Your task to perform on an android device: set the timer Image 0: 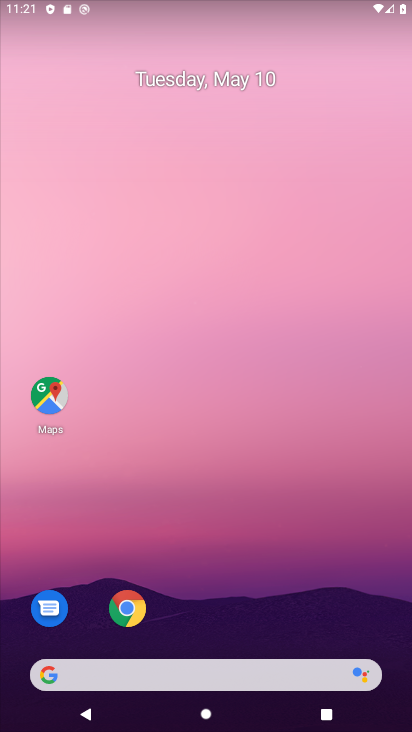
Step 0: drag from (238, 538) to (243, 266)
Your task to perform on an android device: set the timer Image 1: 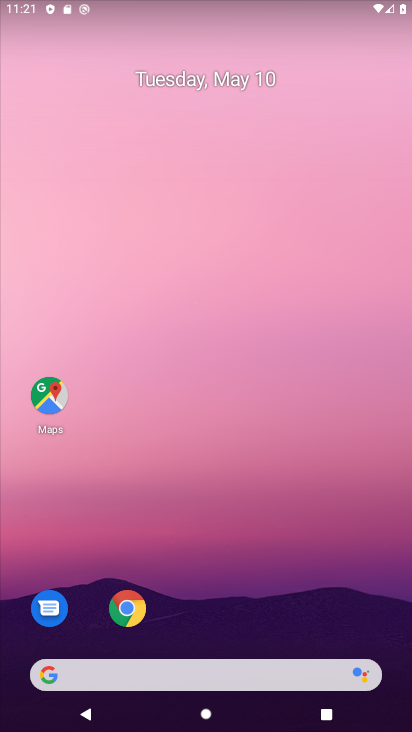
Step 1: drag from (242, 481) to (233, 198)
Your task to perform on an android device: set the timer Image 2: 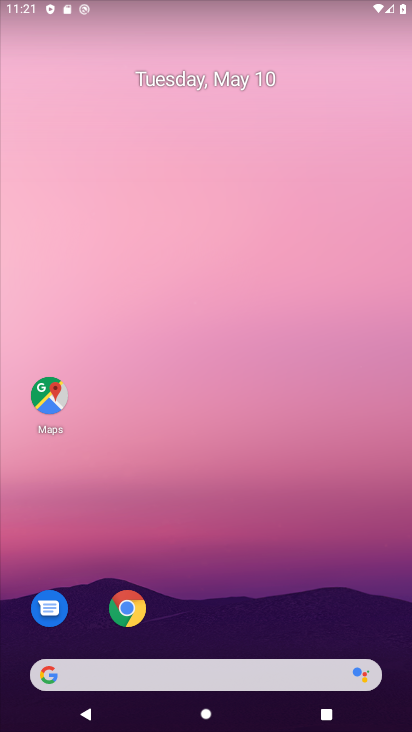
Step 2: drag from (219, 589) to (209, 132)
Your task to perform on an android device: set the timer Image 3: 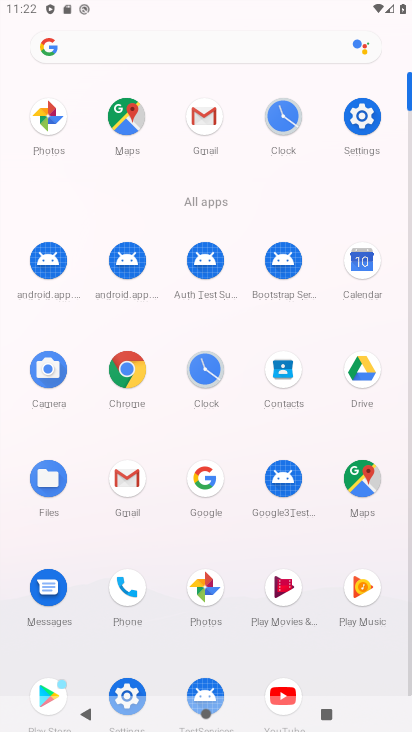
Step 3: click (283, 127)
Your task to perform on an android device: set the timer Image 4: 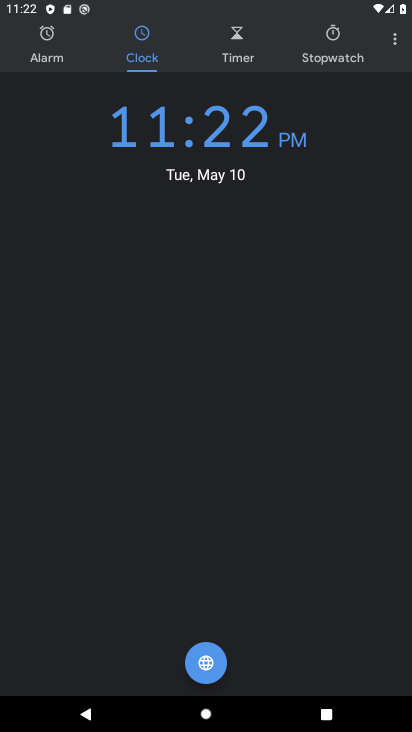
Step 4: click (44, 46)
Your task to perform on an android device: set the timer Image 5: 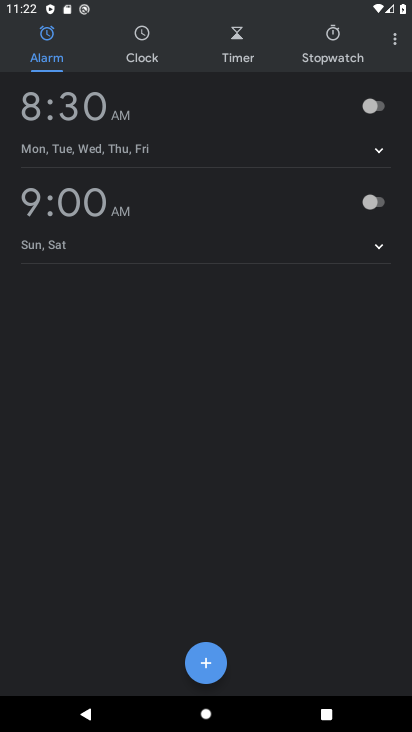
Step 5: click (259, 49)
Your task to perform on an android device: set the timer Image 6: 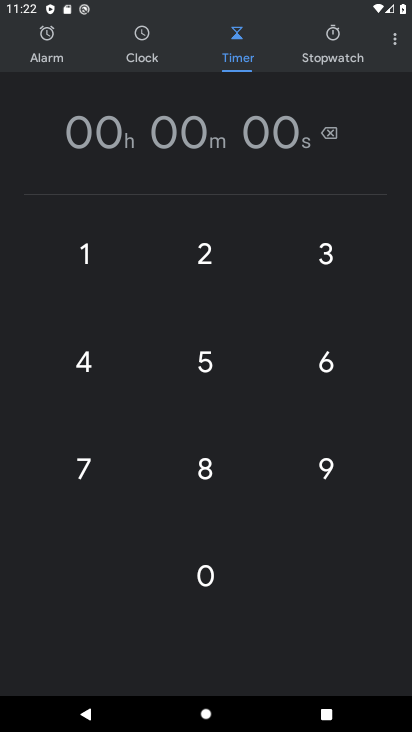
Step 6: click (246, 50)
Your task to perform on an android device: set the timer Image 7: 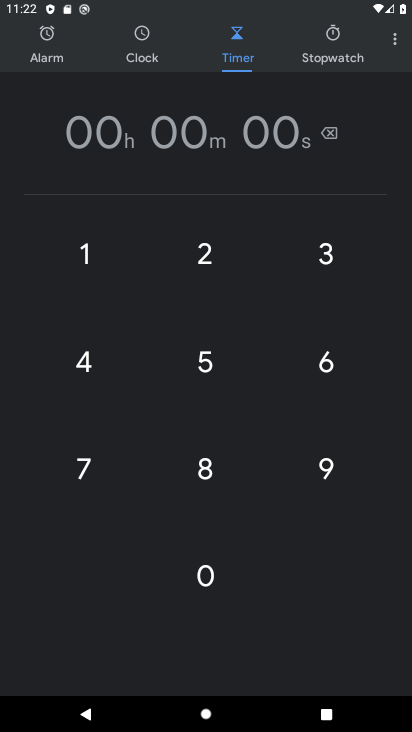
Step 7: click (99, 374)
Your task to perform on an android device: set the timer Image 8: 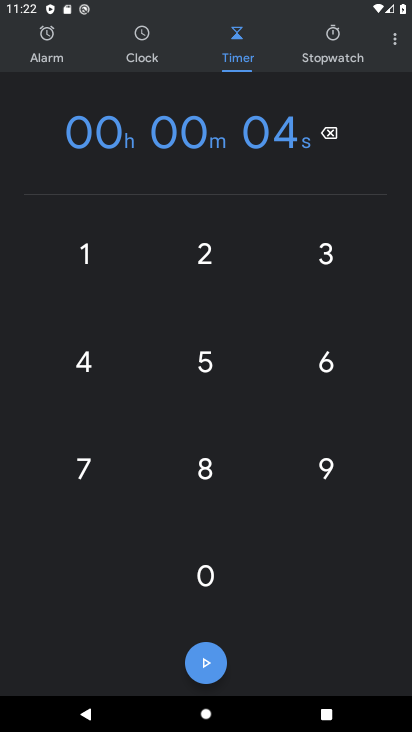
Step 8: click (199, 575)
Your task to perform on an android device: set the timer Image 9: 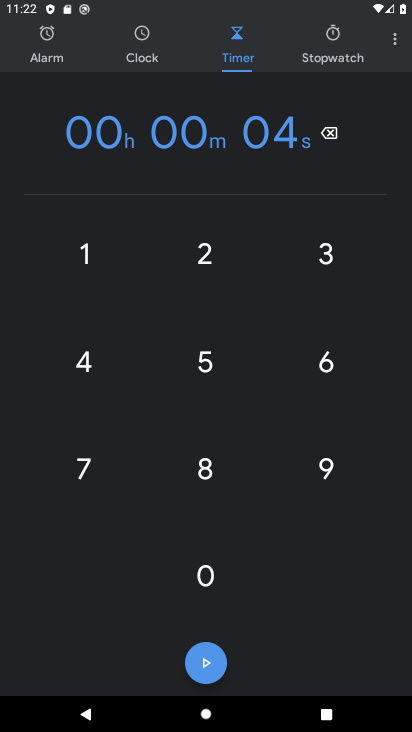
Step 9: click (199, 575)
Your task to perform on an android device: set the timer Image 10: 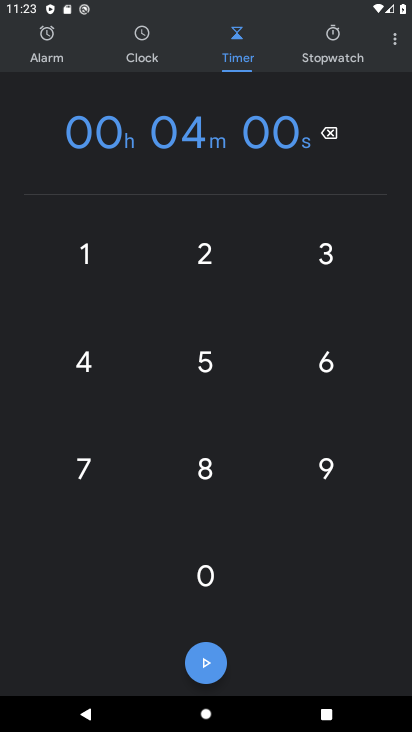
Step 10: click (199, 575)
Your task to perform on an android device: set the timer Image 11: 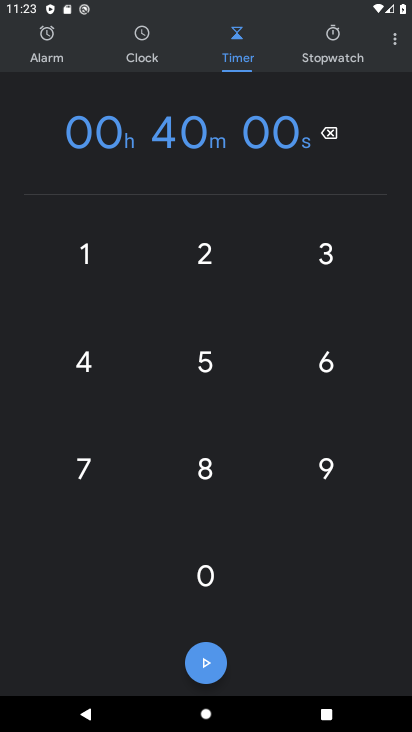
Step 11: click (199, 575)
Your task to perform on an android device: set the timer Image 12: 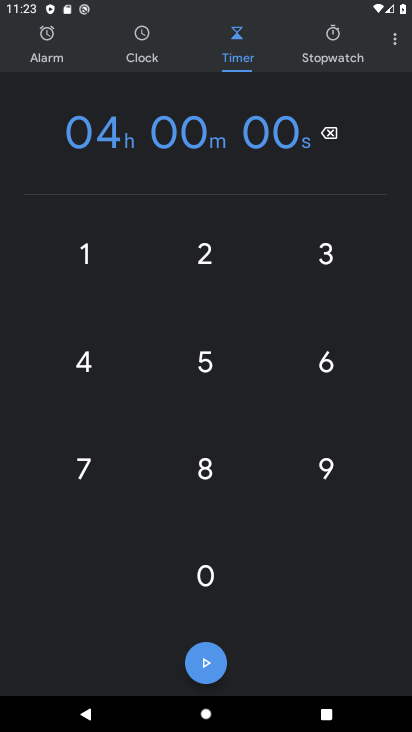
Step 12: click (212, 658)
Your task to perform on an android device: set the timer Image 13: 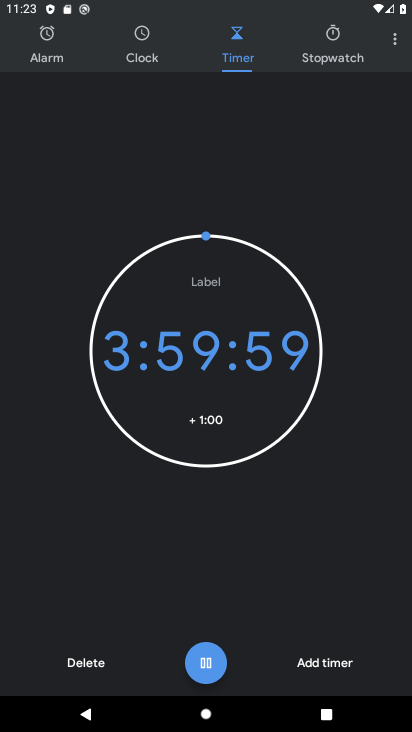
Step 13: click (316, 660)
Your task to perform on an android device: set the timer Image 14: 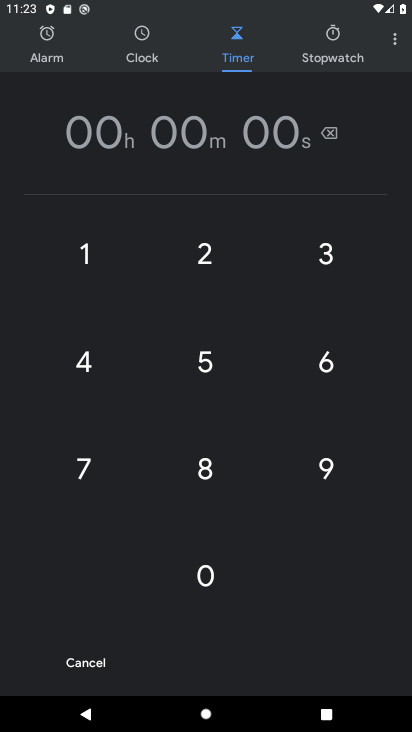
Step 14: task complete